Your task to perform on an android device: Open settings on Google Maps Image 0: 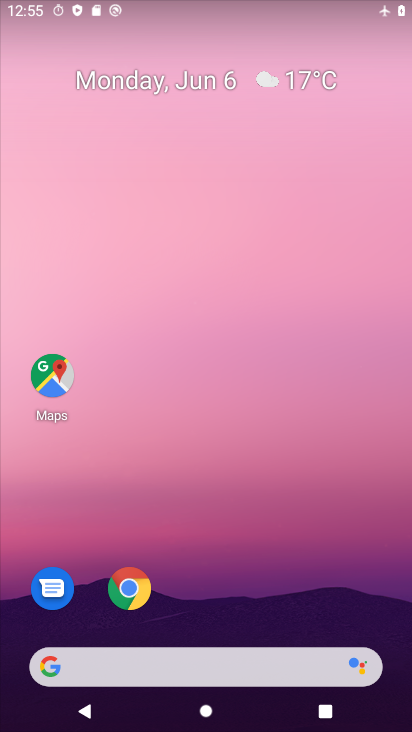
Step 0: click (46, 370)
Your task to perform on an android device: Open settings on Google Maps Image 1: 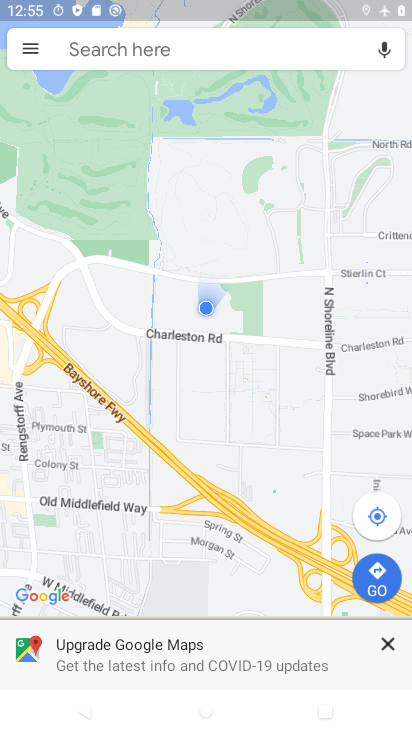
Step 1: task complete